Your task to perform on an android device: turn off wifi Image 0: 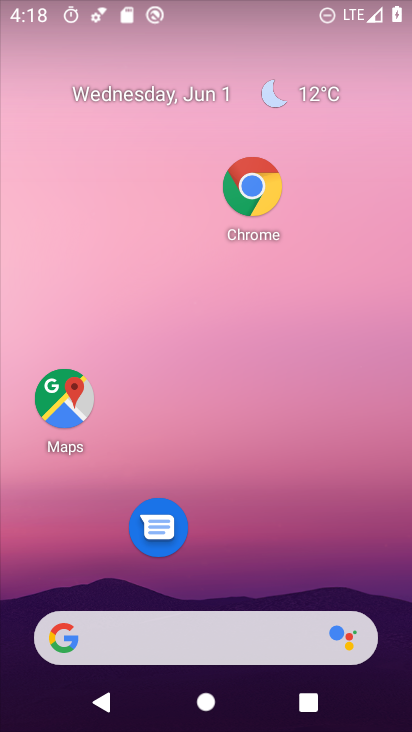
Step 0: drag from (205, 664) to (230, 273)
Your task to perform on an android device: turn off wifi Image 1: 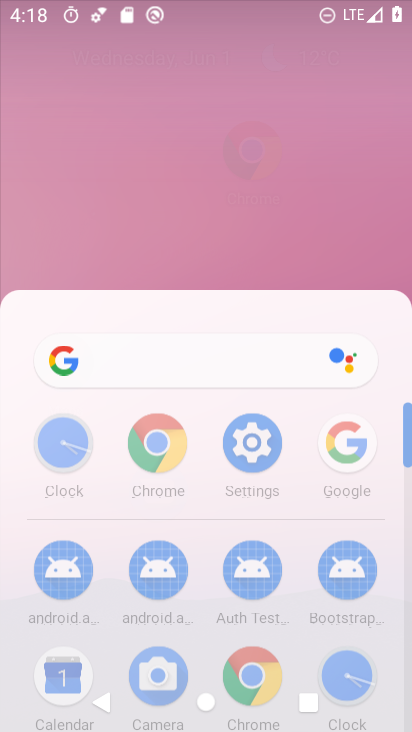
Step 1: click (248, 127)
Your task to perform on an android device: turn off wifi Image 2: 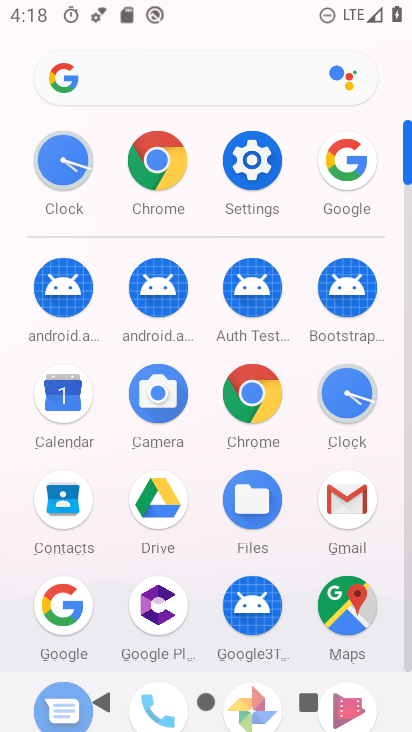
Step 2: click (256, 164)
Your task to perform on an android device: turn off wifi Image 3: 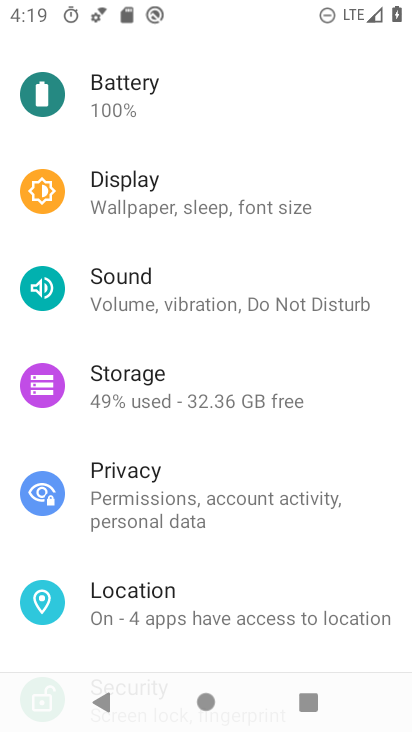
Step 3: drag from (232, 235) to (146, 721)
Your task to perform on an android device: turn off wifi Image 4: 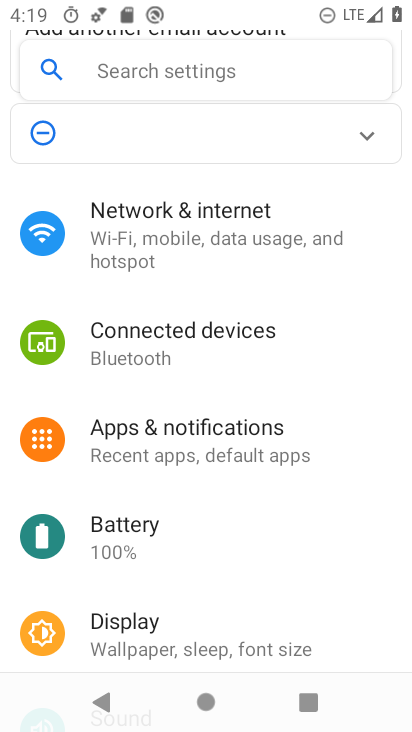
Step 4: click (244, 247)
Your task to perform on an android device: turn off wifi Image 5: 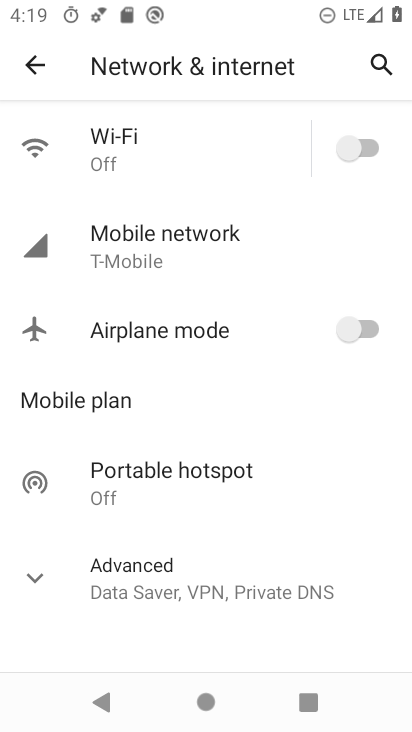
Step 5: task complete